Your task to perform on an android device: turn off improve location accuracy Image 0: 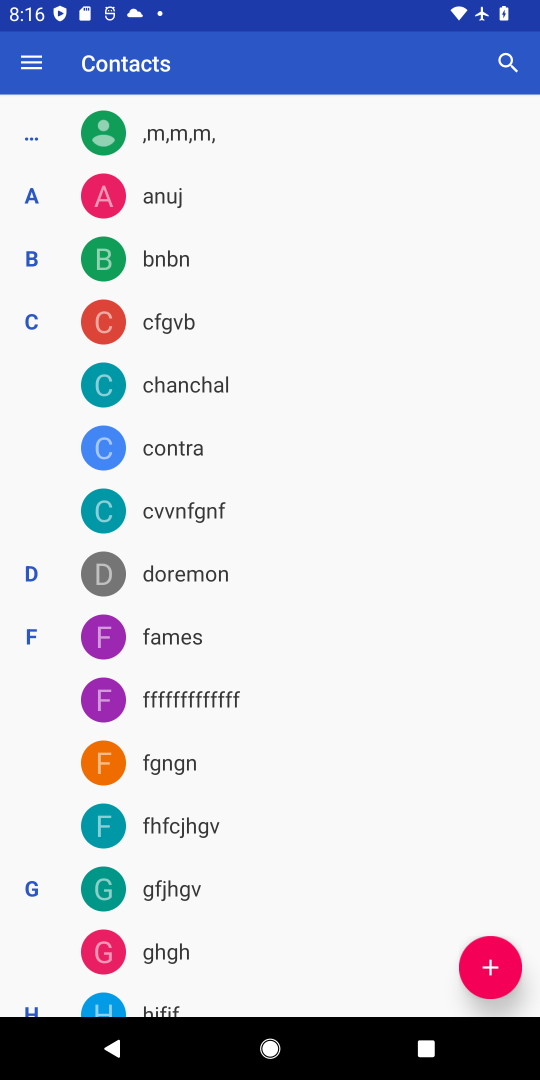
Step 0: press home button
Your task to perform on an android device: turn off improve location accuracy Image 1: 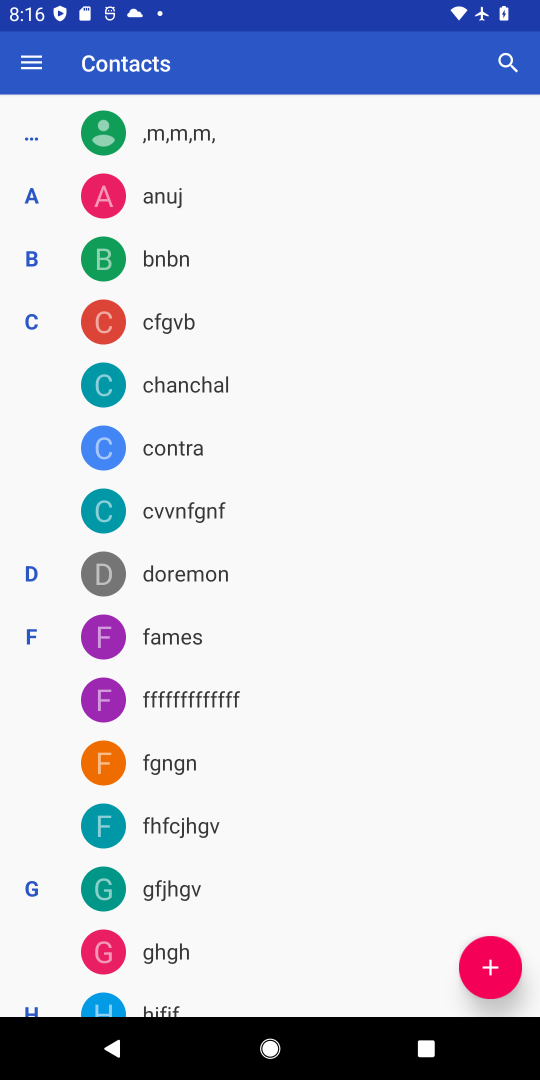
Step 1: press home button
Your task to perform on an android device: turn off improve location accuracy Image 2: 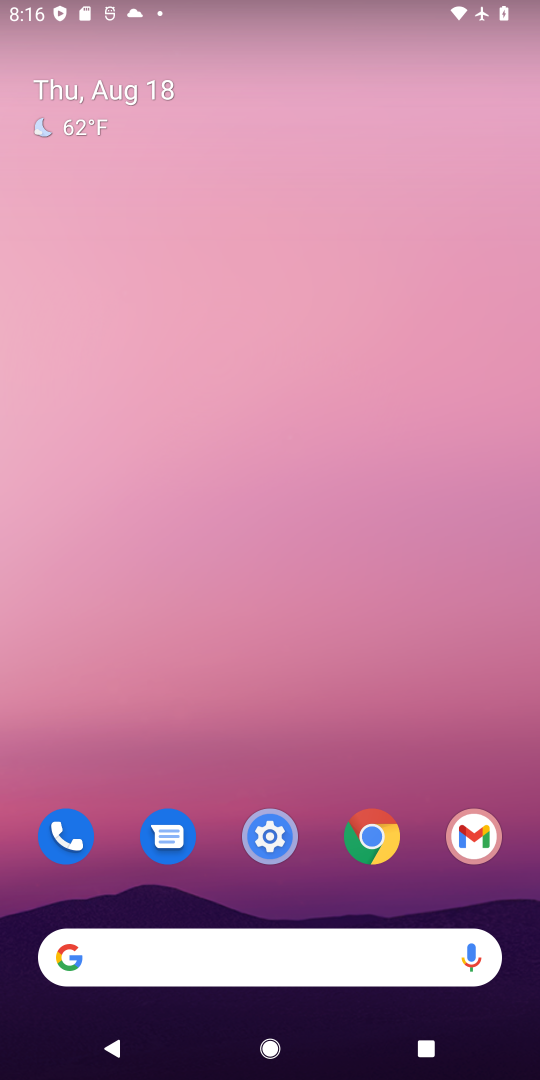
Step 2: drag from (373, 735) to (369, 244)
Your task to perform on an android device: turn off improve location accuracy Image 3: 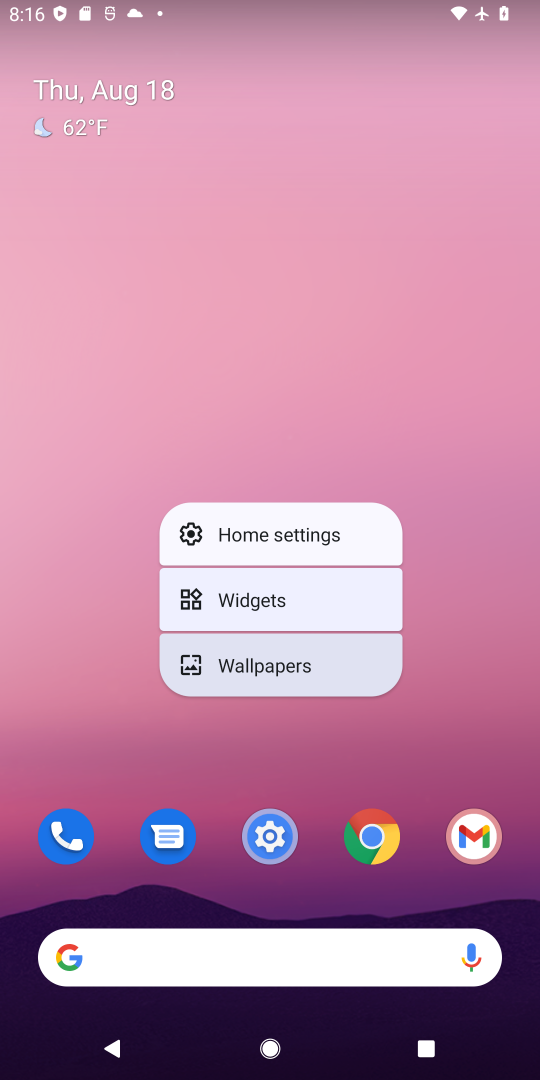
Step 3: click (379, 730)
Your task to perform on an android device: turn off improve location accuracy Image 4: 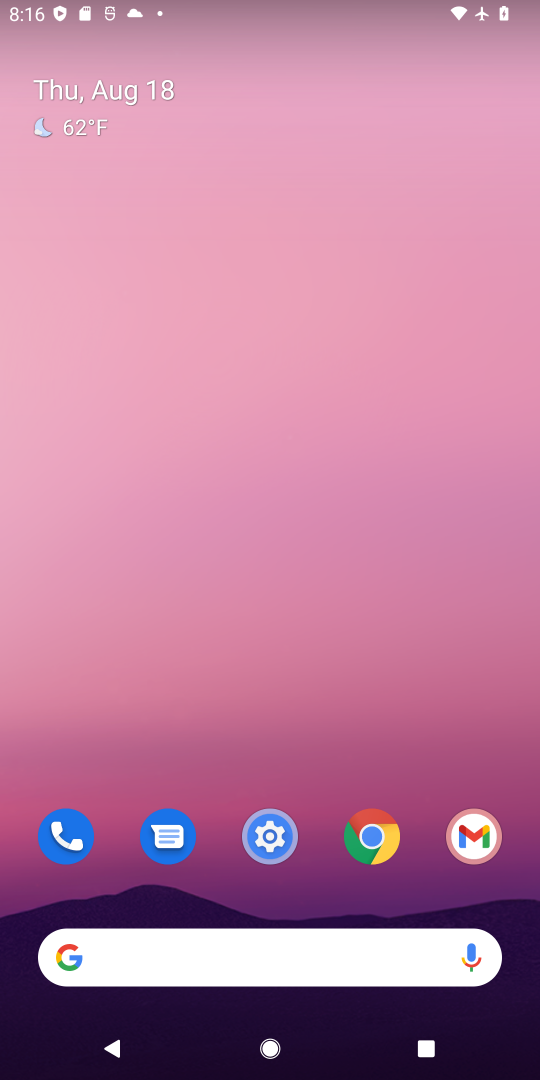
Step 4: drag from (382, 750) to (325, 54)
Your task to perform on an android device: turn off improve location accuracy Image 5: 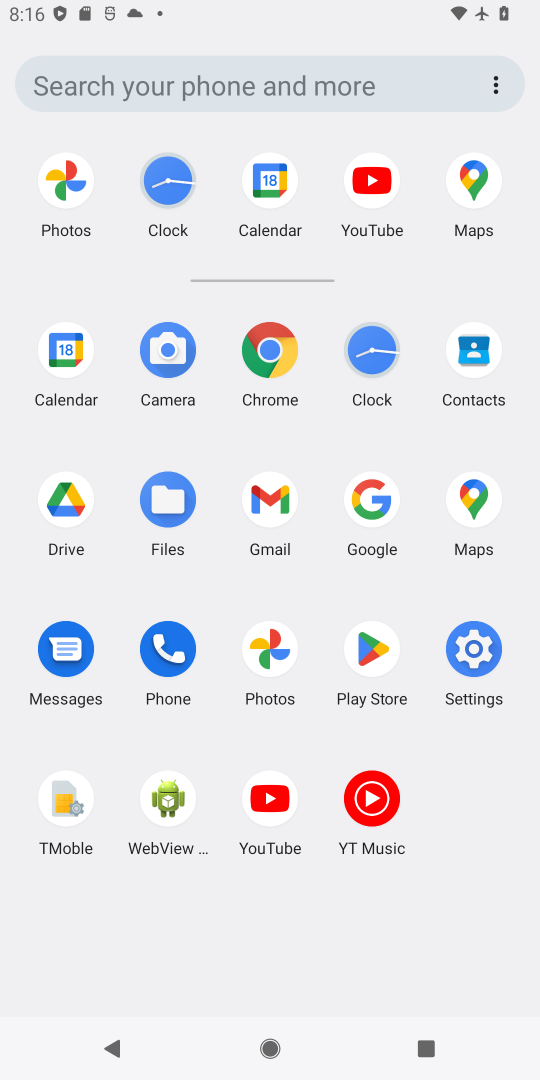
Step 5: click (461, 639)
Your task to perform on an android device: turn off improve location accuracy Image 6: 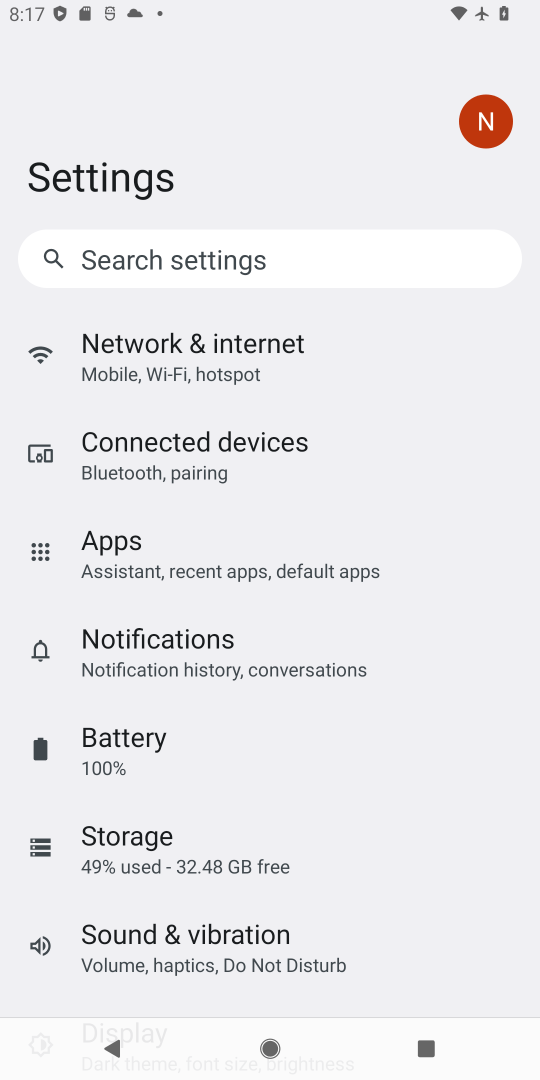
Step 6: drag from (280, 788) to (373, 244)
Your task to perform on an android device: turn off improve location accuracy Image 7: 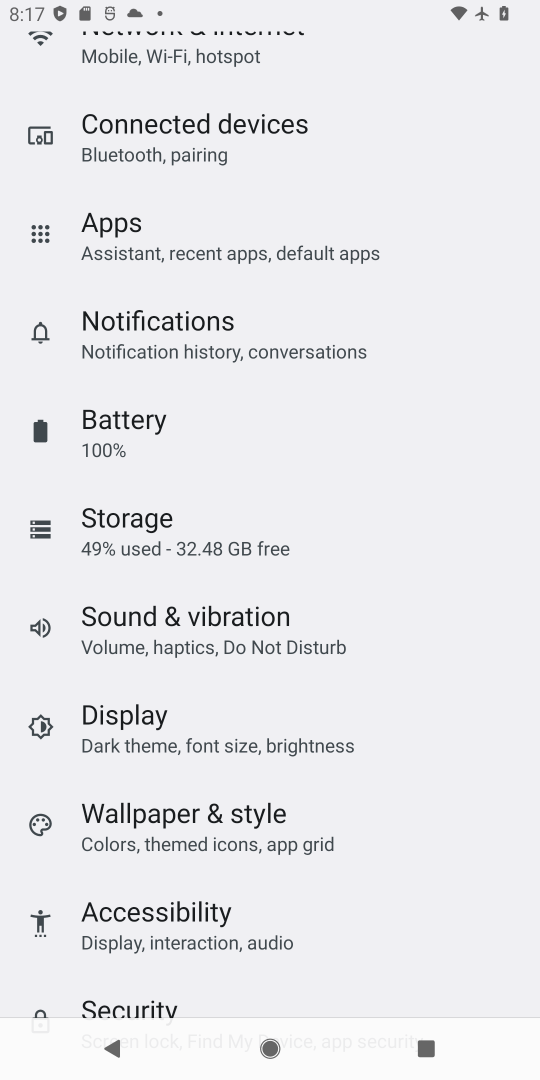
Step 7: drag from (405, 971) to (377, 295)
Your task to perform on an android device: turn off improve location accuracy Image 8: 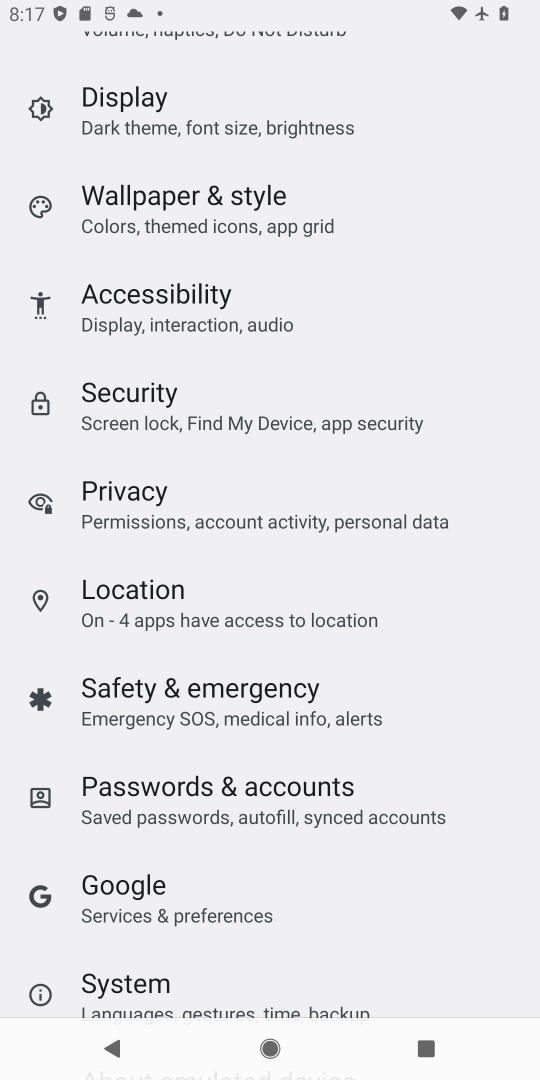
Step 8: click (174, 632)
Your task to perform on an android device: turn off improve location accuracy Image 9: 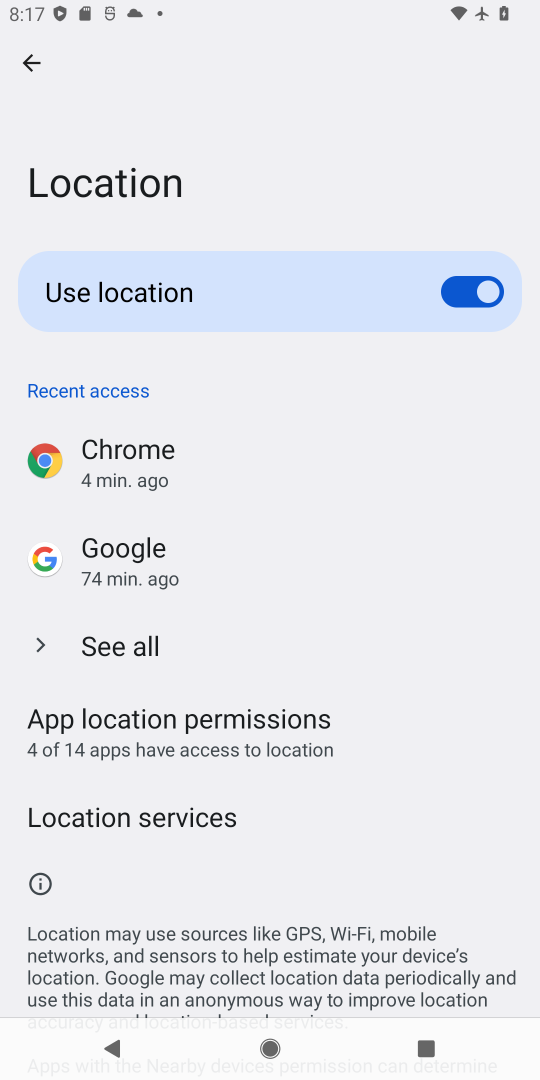
Step 9: click (182, 852)
Your task to perform on an android device: turn off improve location accuracy Image 10: 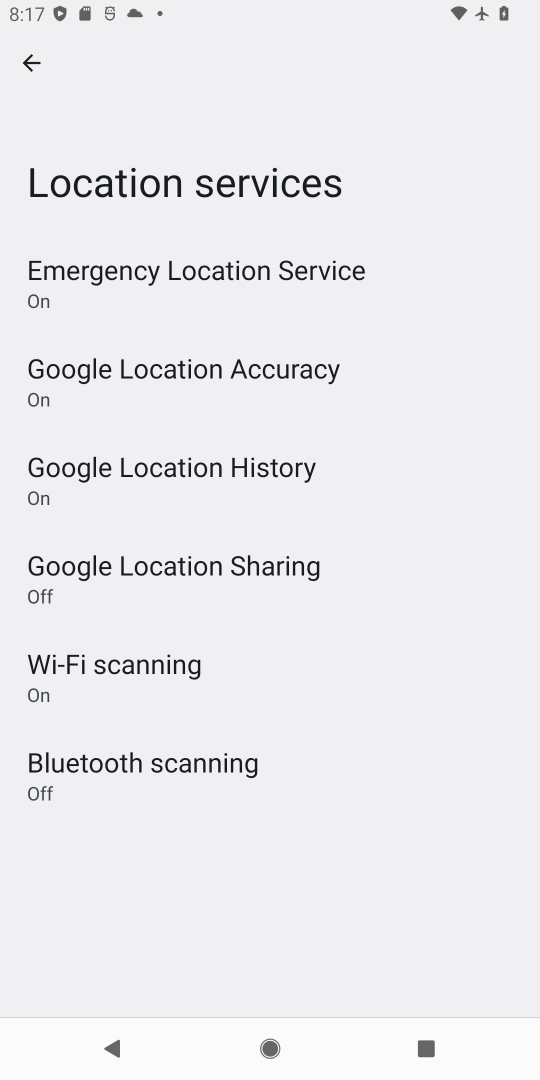
Step 10: click (257, 380)
Your task to perform on an android device: turn off improve location accuracy Image 11: 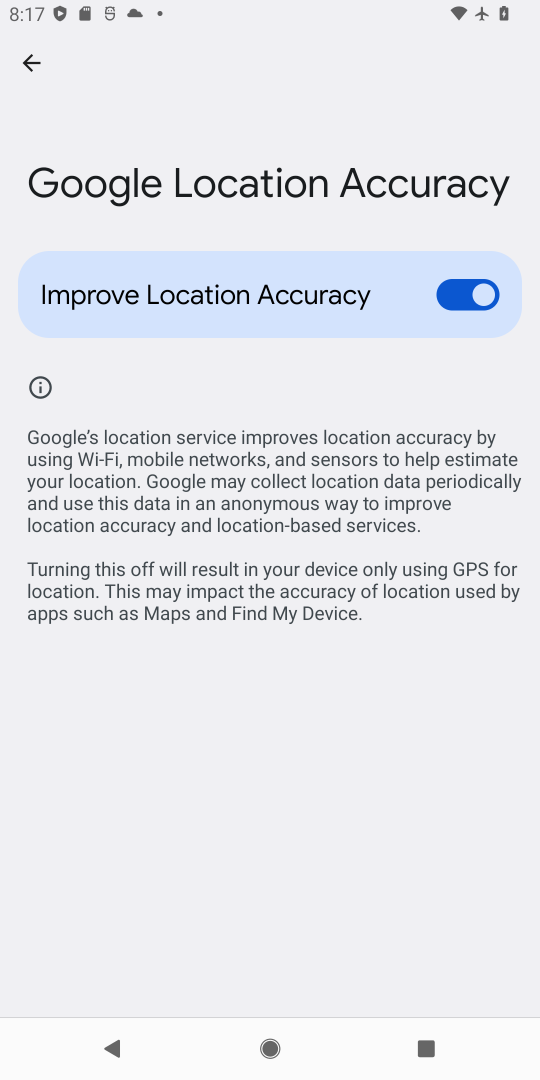
Step 11: click (461, 293)
Your task to perform on an android device: turn off improve location accuracy Image 12: 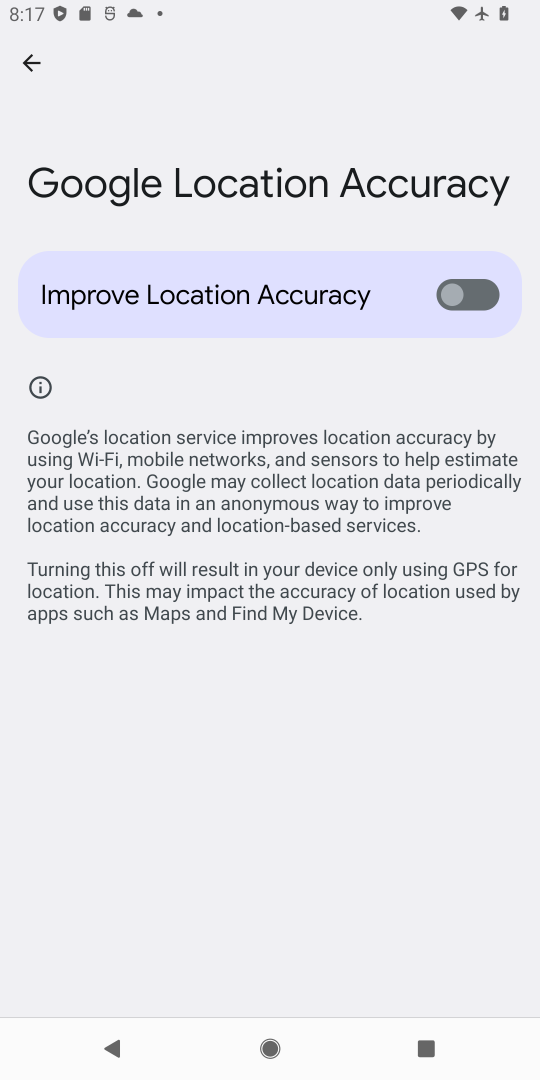
Step 12: task complete